Your task to perform on an android device: Open location settings Image 0: 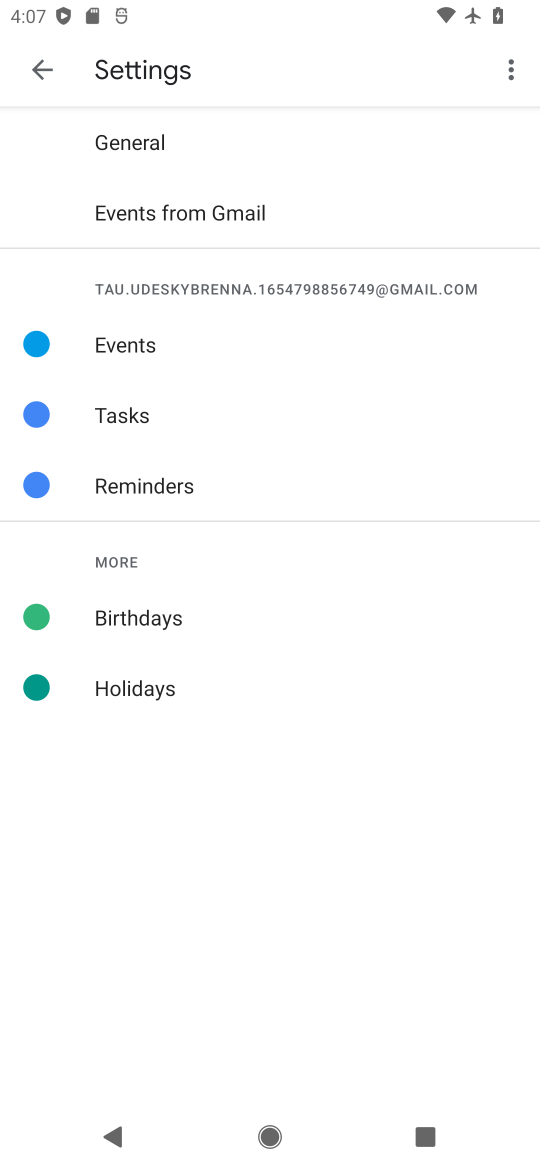
Step 0: press home button
Your task to perform on an android device: Open location settings Image 1: 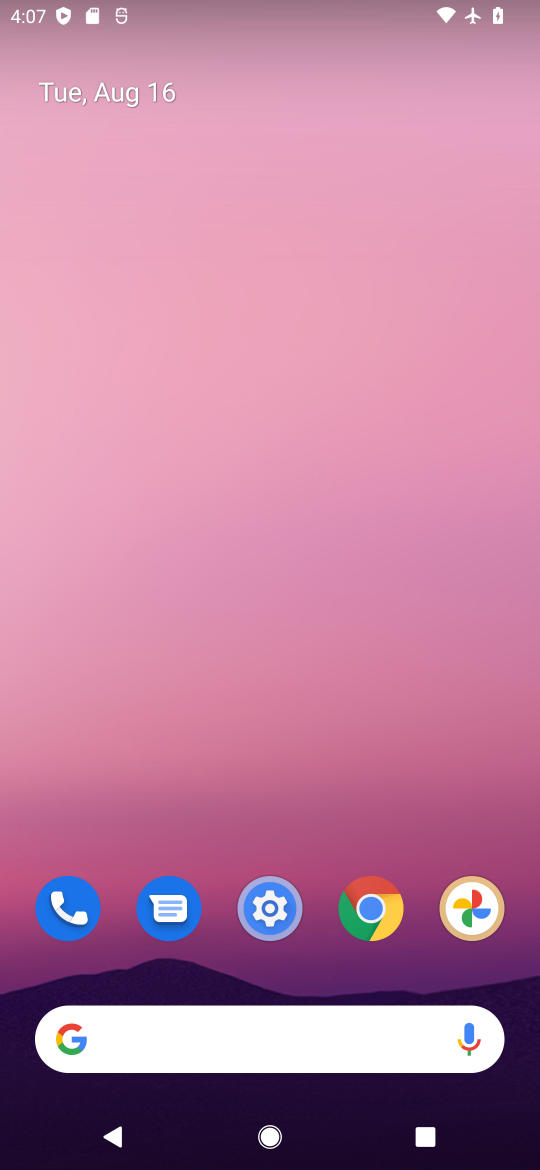
Step 1: drag from (318, 871) to (276, 6)
Your task to perform on an android device: Open location settings Image 2: 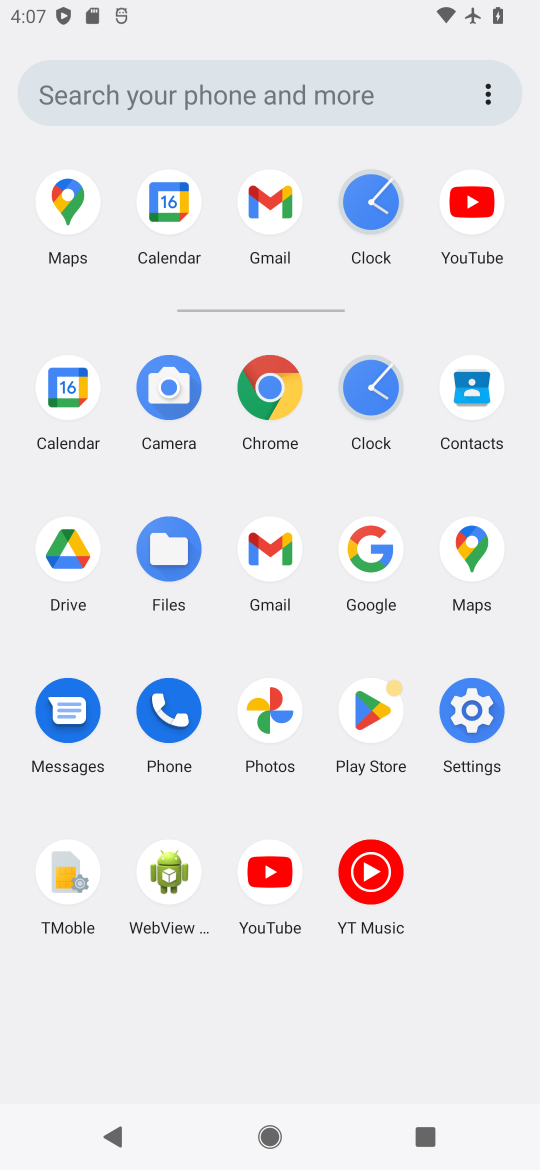
Step 2: click (467, 701)
Your task to perform on an android device: Open location settings Image 3: 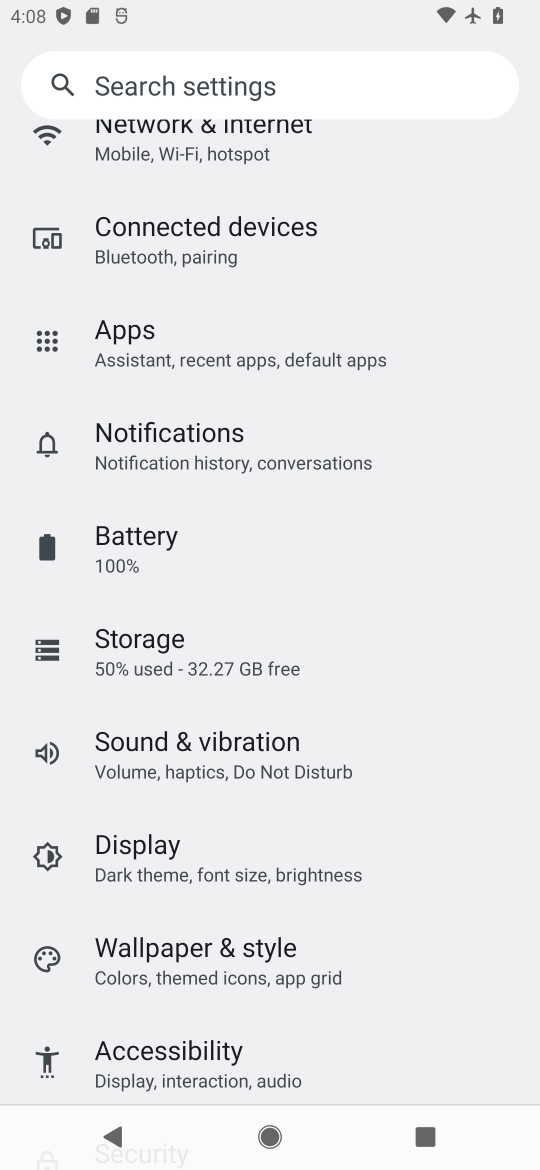
Step 3: drag from (247, 1036) to (296, 311)
Your task to perform on an android device: Open location settings Image 4: 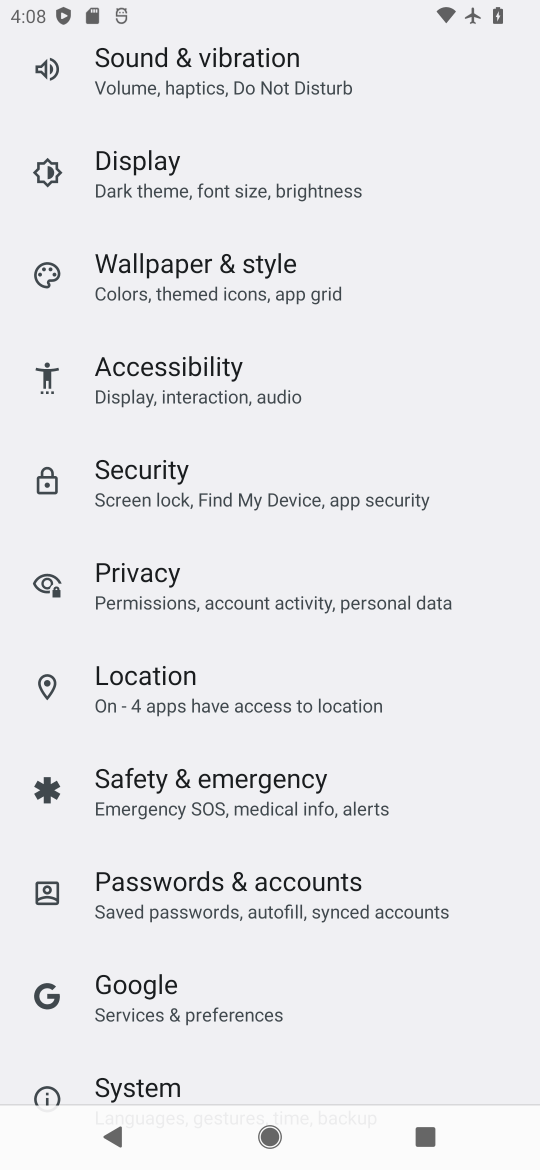
Step 4: click (236, 719)
Your task to perform on an android device: Open location settings Image 5: 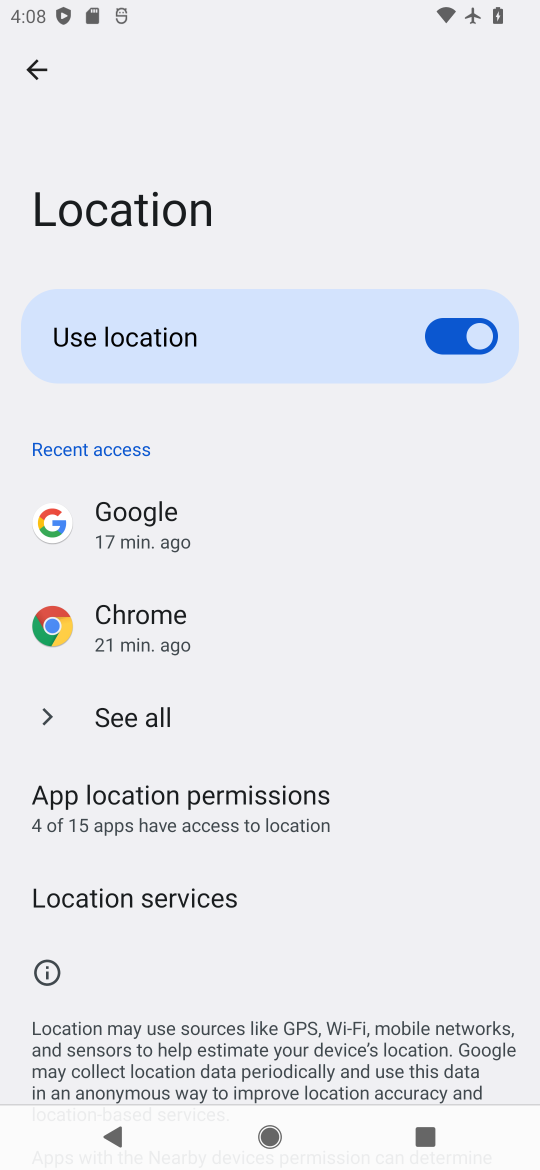
Step 5: click (240, 892)
Your task to perform on an android device: Open location settings Image 6: 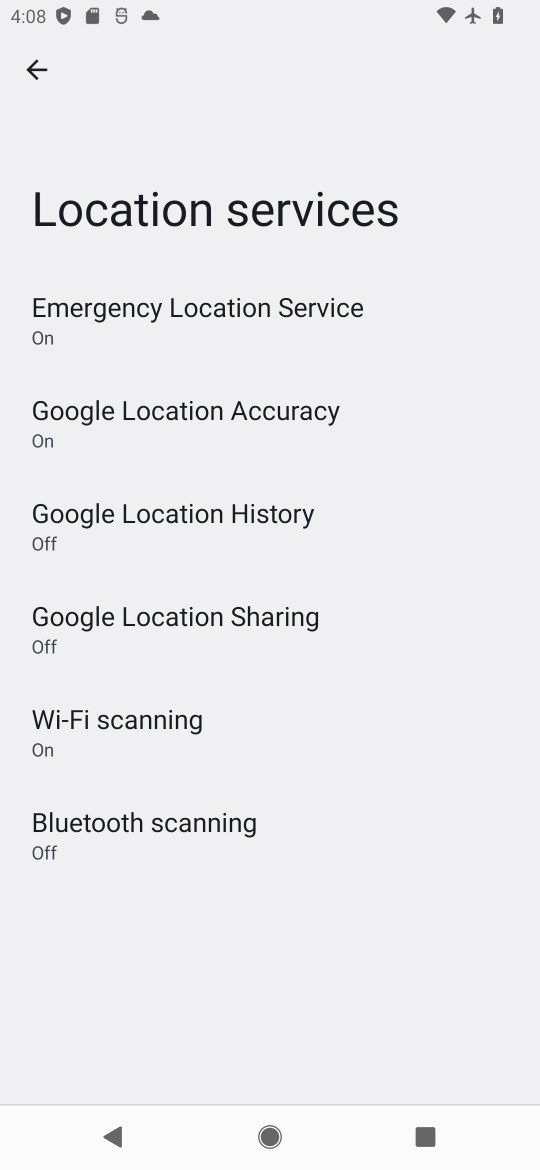
Step 6: task complete